Your task to perform on an android device: Add "dell alienware" to the cart on amazon, then select checkout. Image 0: 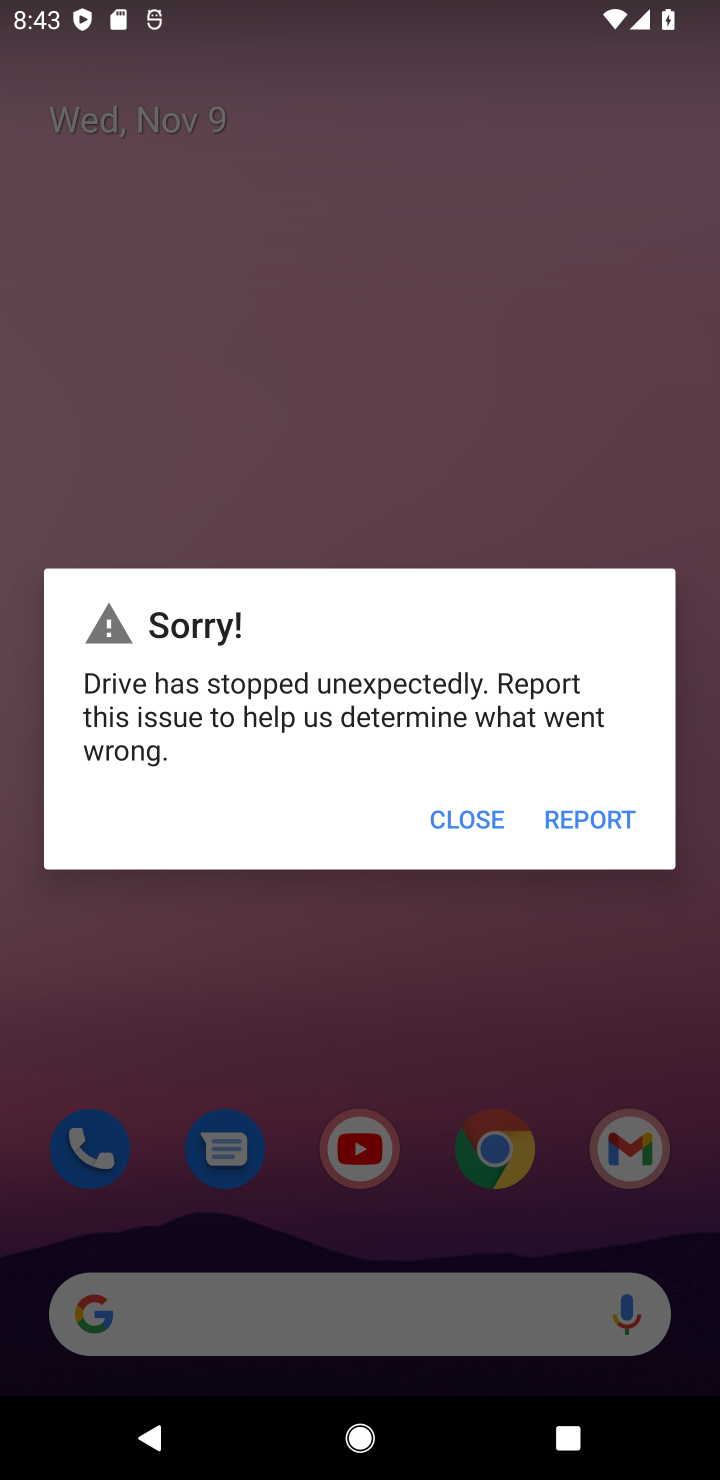
Step 0: click (454, 827)
Your task to perform on an android device: Add "dell alienware" to the cart on amazon, then select checkout. Image 1: 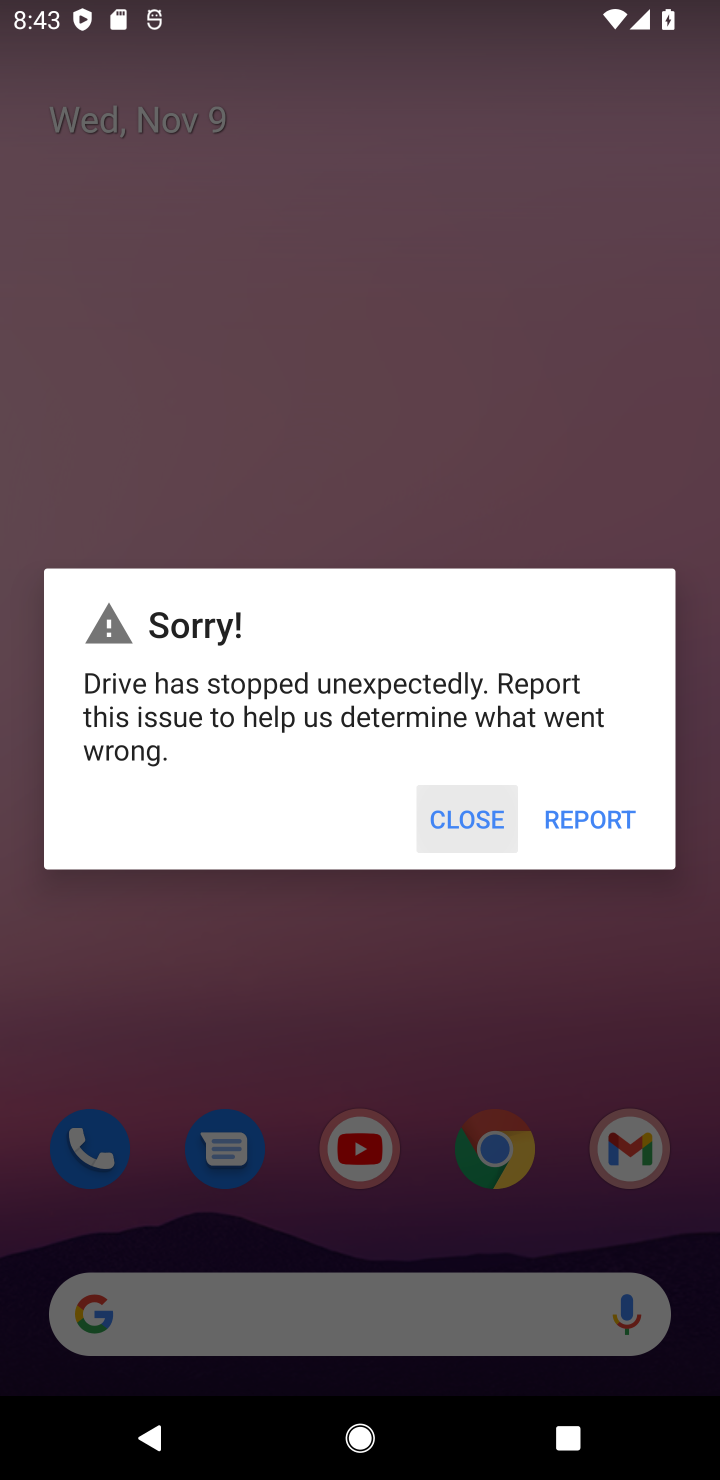
Step 1: click (467, 817)
Your task to perform on an android device: Add "dell alienware" to the cart on amazon, then select checkout. Image 2: 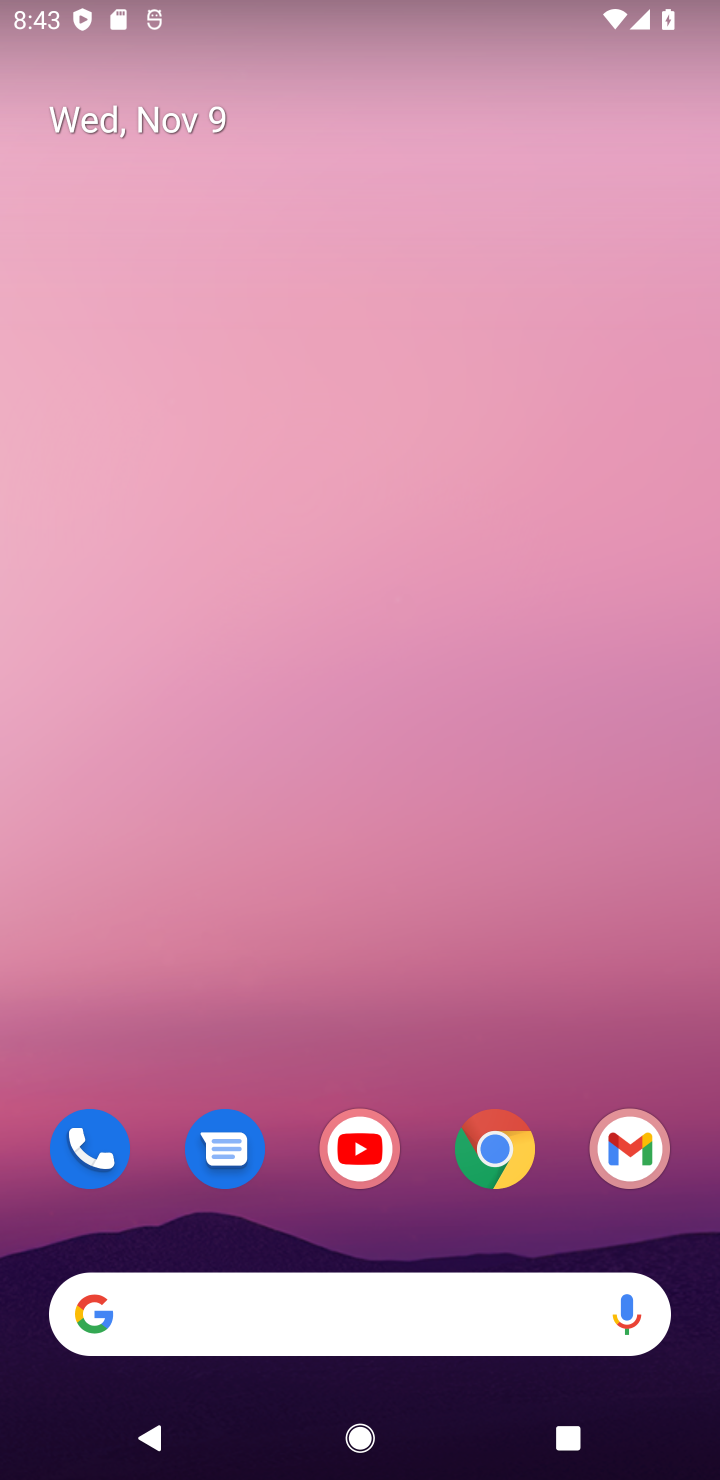
Step 2: click (502, 1153)
Your task to perform on an android device: Add "dell alienware" to the cart on amazon, then select checkout. Image 3: 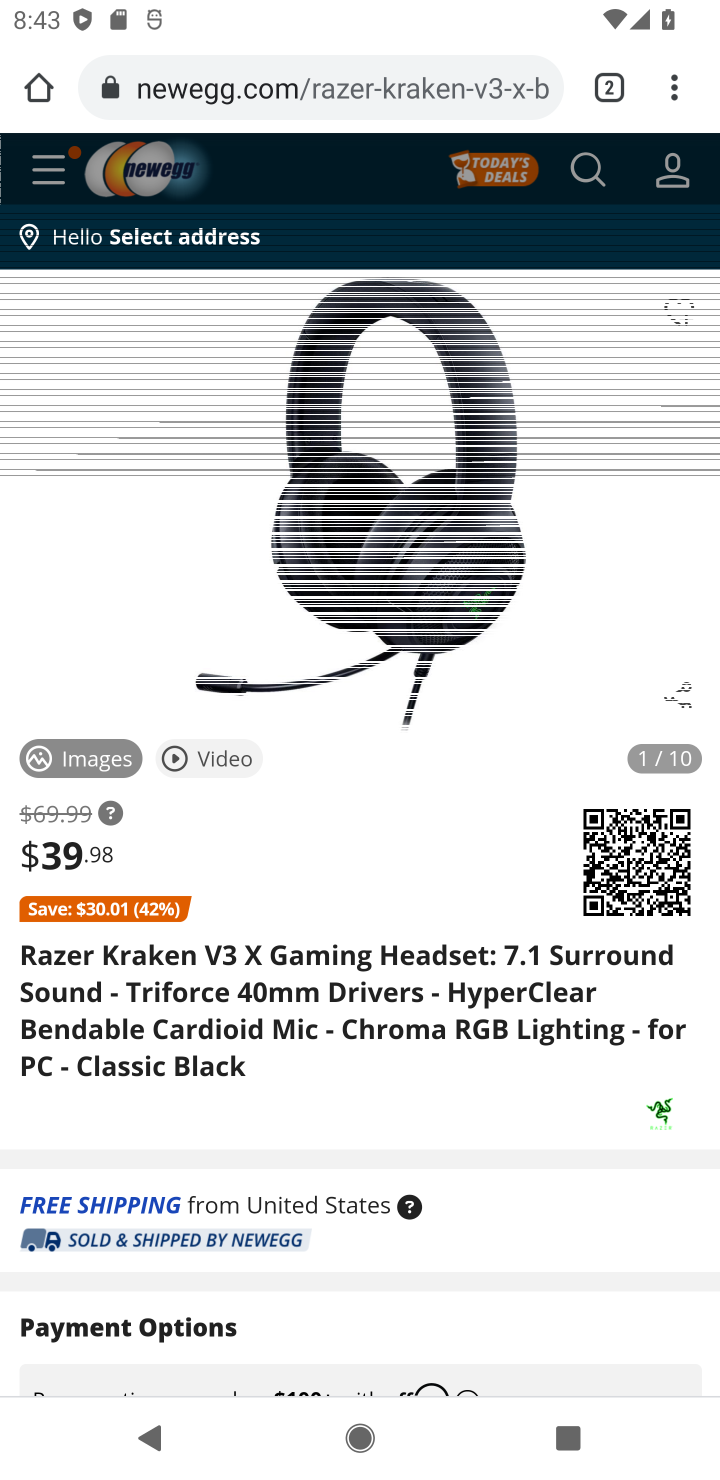
Step 3: click (611, 78)
Your task to perform on an android device: Add "dell alienware" to the cart on amazon, then select checkout. Image 4: 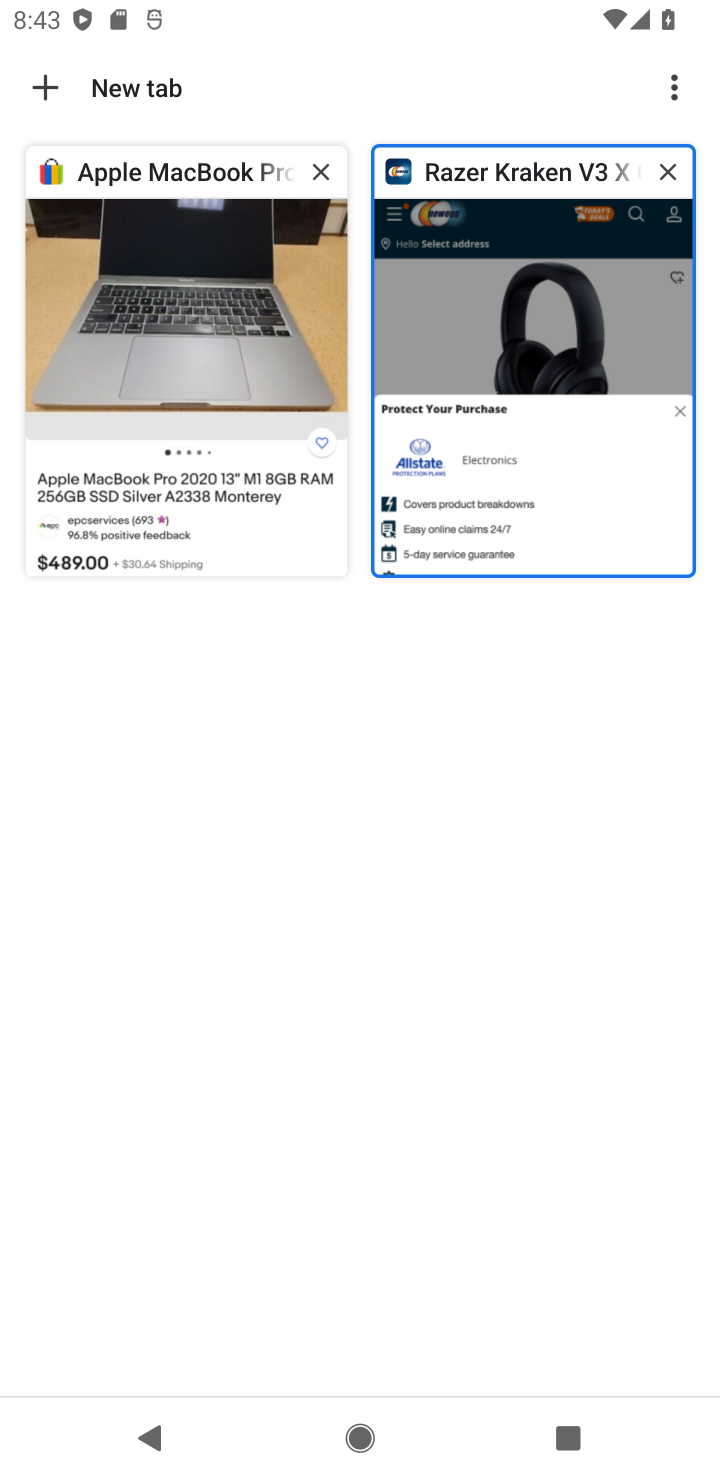
Step 4: click (36, 78)
Your task to perform on an android device: Add "dell alienware" to the cart on amazon, then select checkout. Image 5: 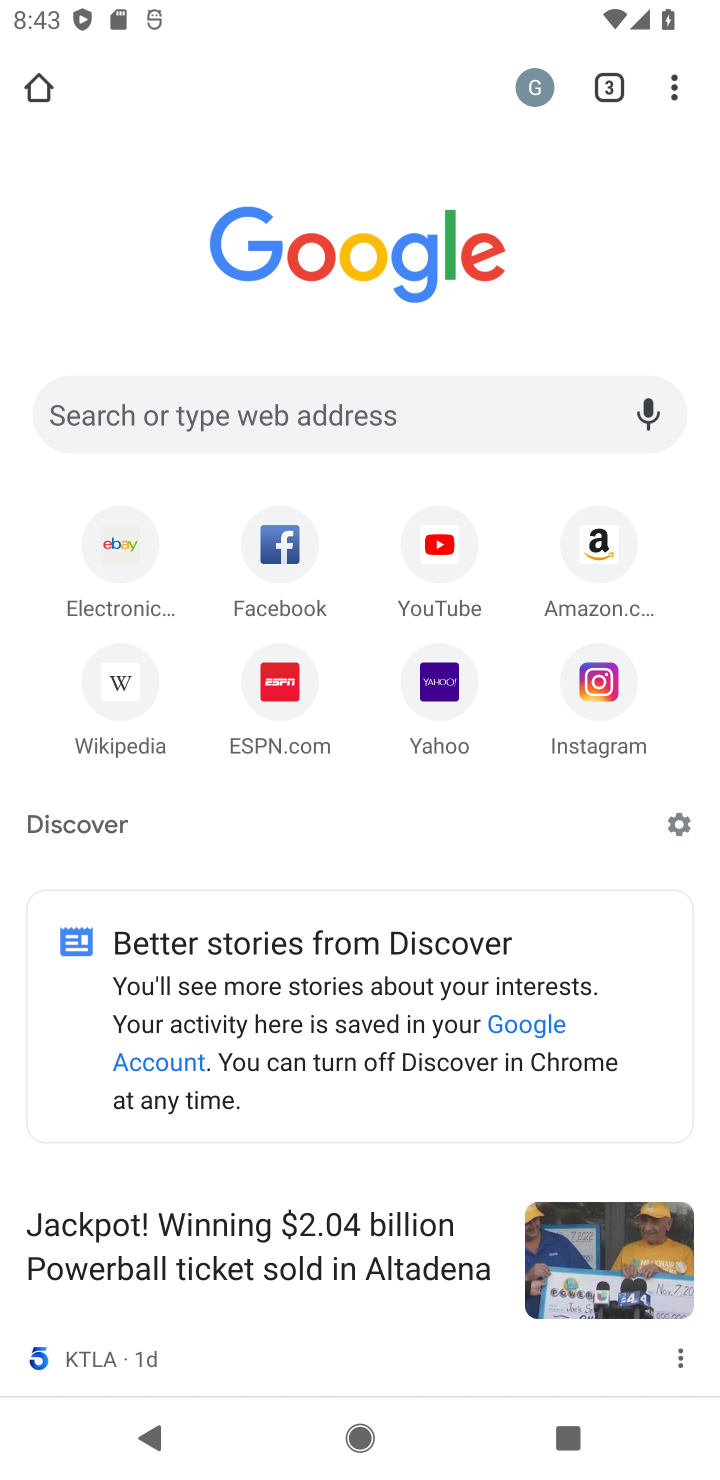
Step 5: click (412, 404)
Your task to perform on an android device: Add "dell alienware" to the cart on amazon, then select checkout. Image 6: 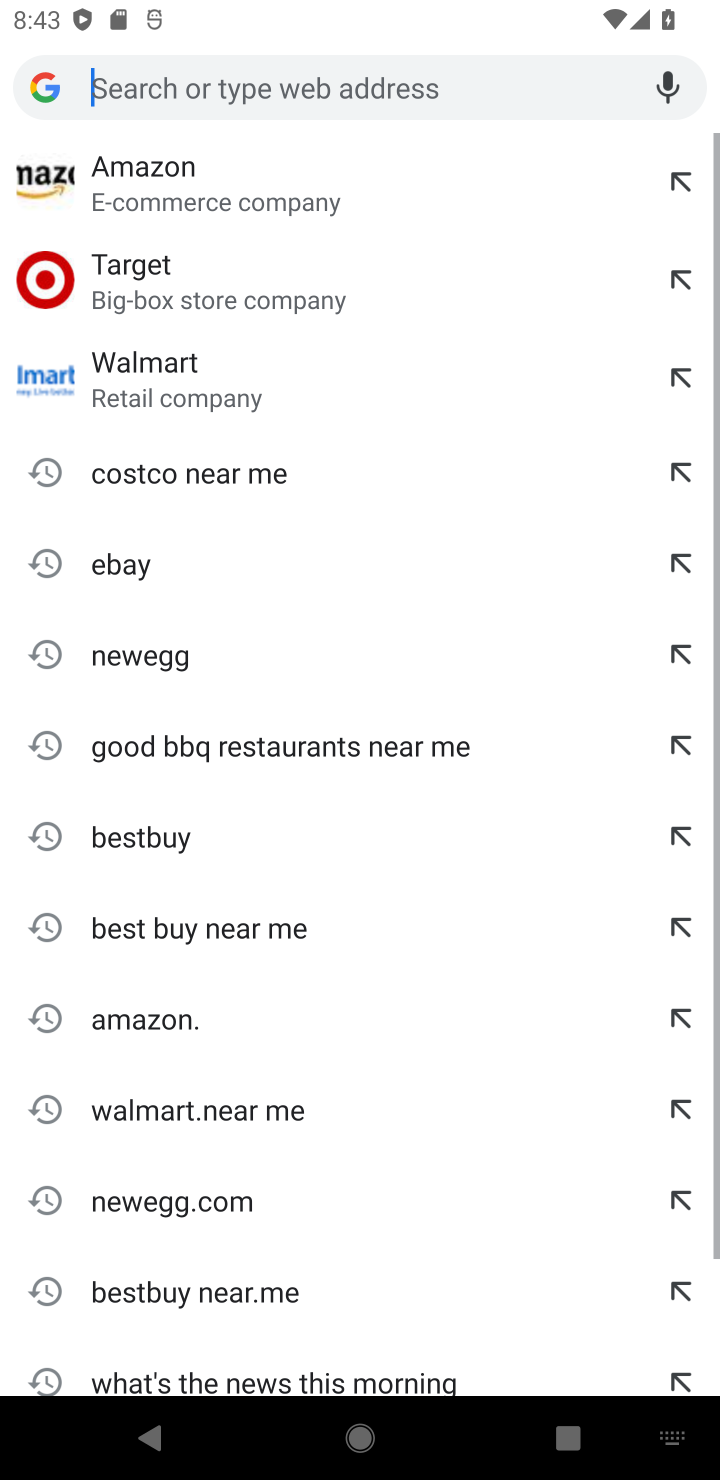
Step 6: click (228, 196)
Your task to perform on an android device: Add "dell alienware" to the cart on amazon, then select checkout. Image 7: 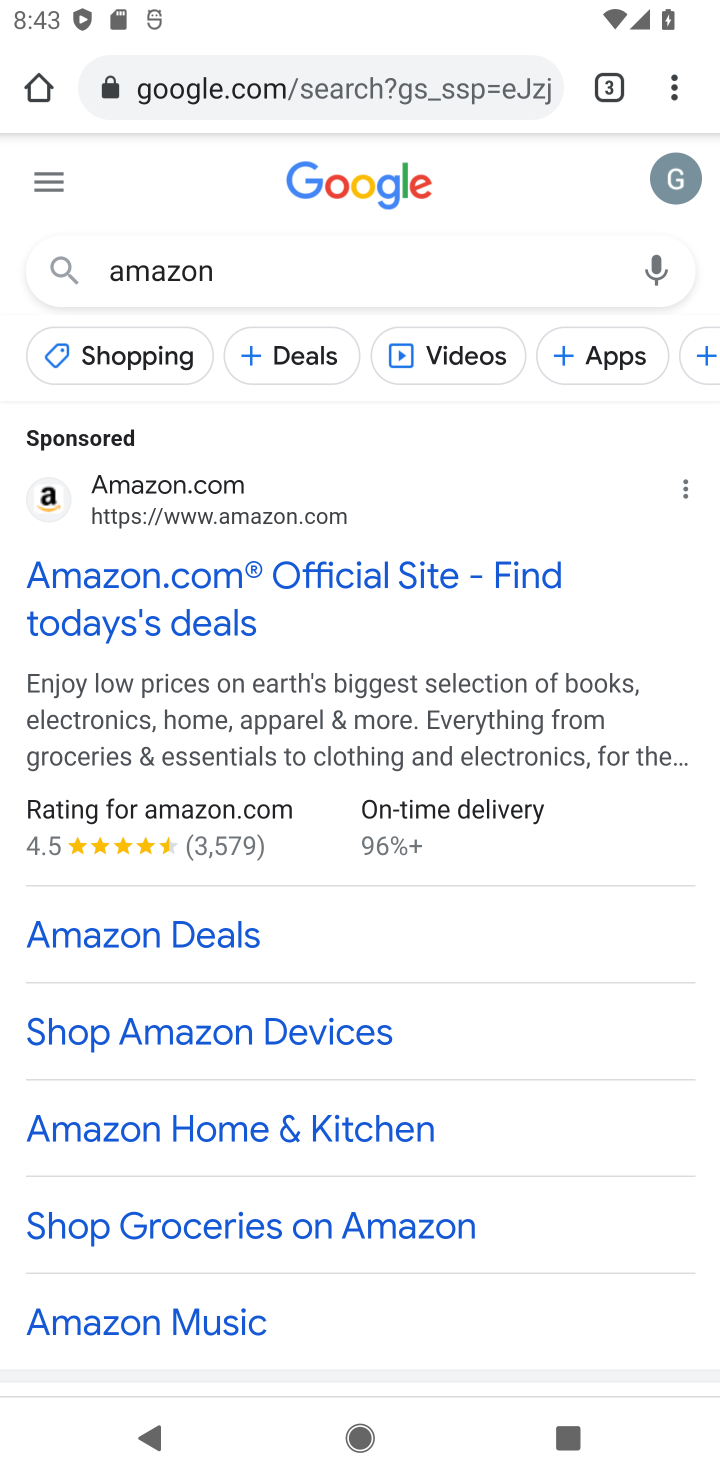
Step 7: click (114, 594)
Your task to perform on an android device: Add "dell alienware" to the cart on amazon, then select checkout. Image 8: 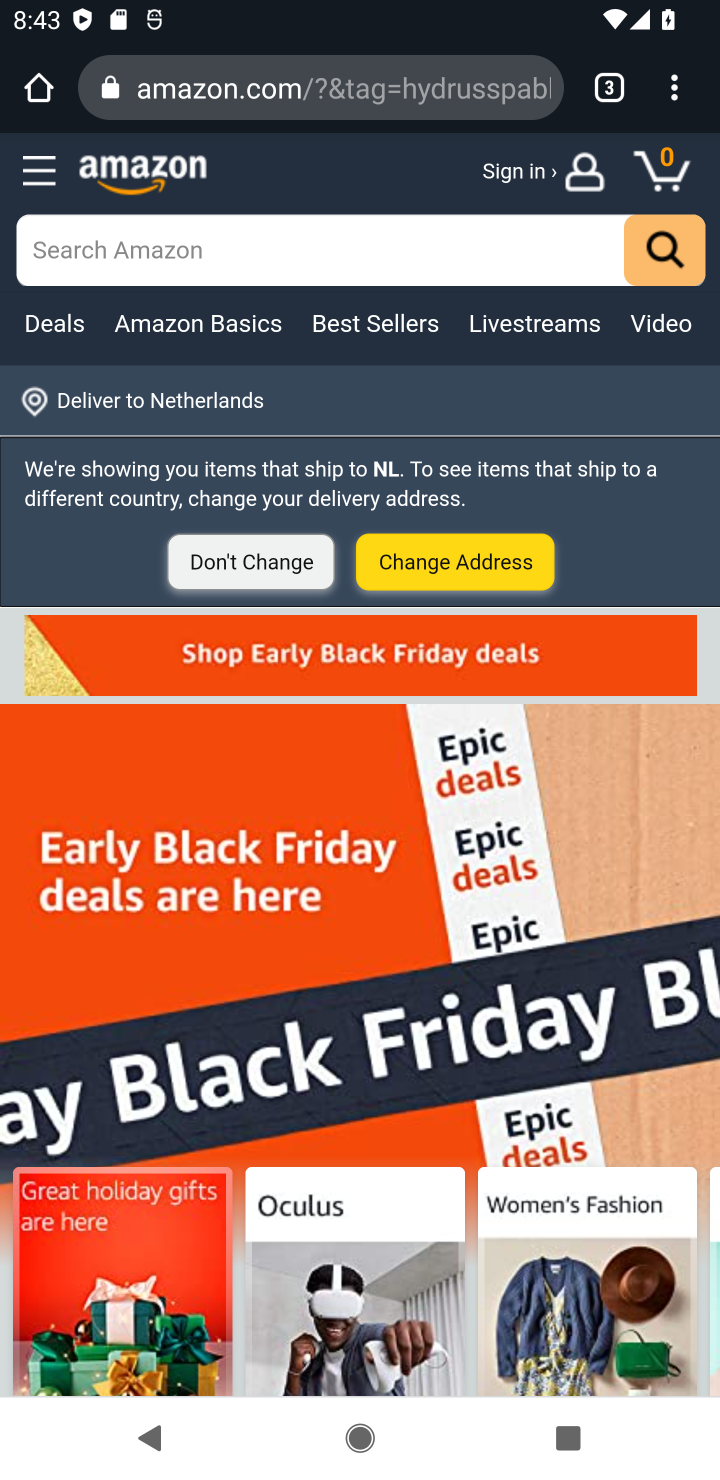
Step 8: click (201, 237)
Your task to perform on an android device: Add "dell alienware" to the cart on amazon, then select checkout. Image 9: 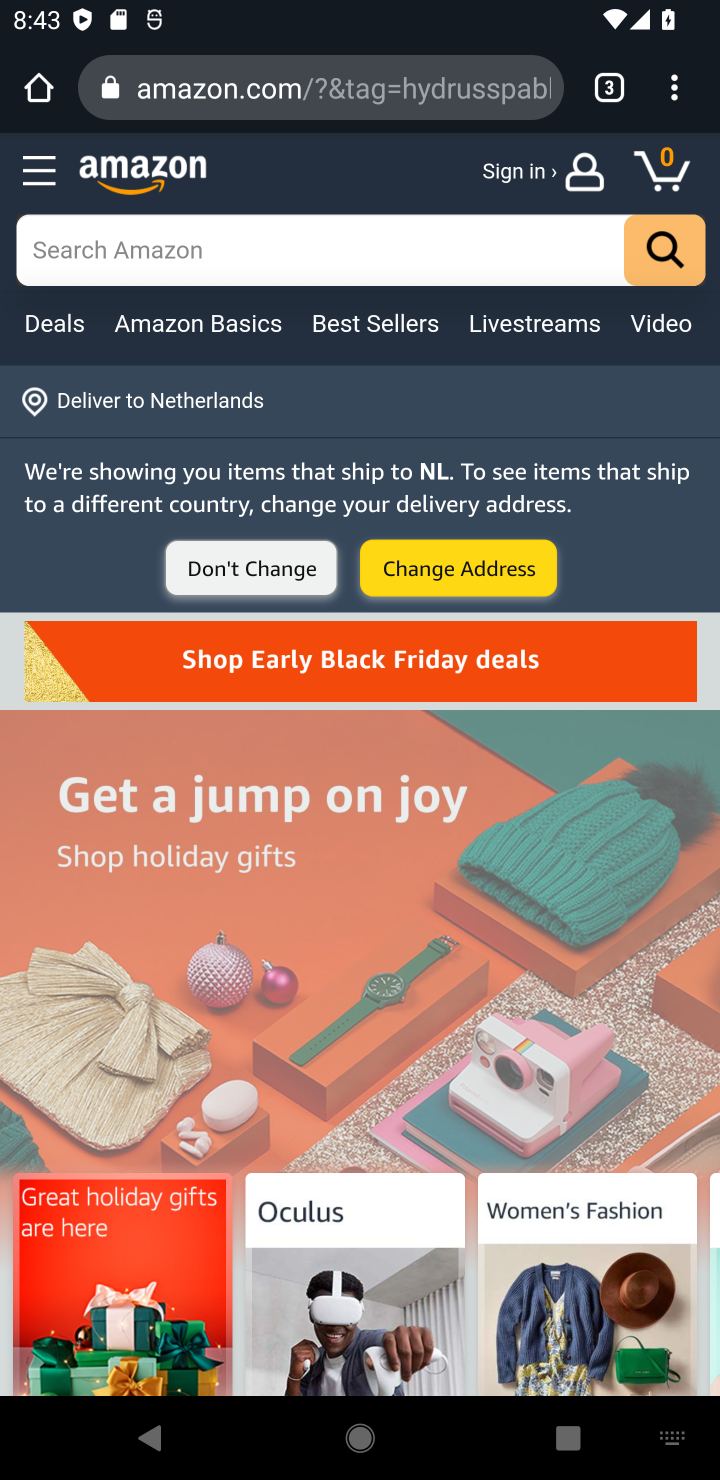
Step 9: type "dell alienware""
Your task to perform on an android device: Add "dell alienware" to the cart on amazon, then select checkout. Image 10: 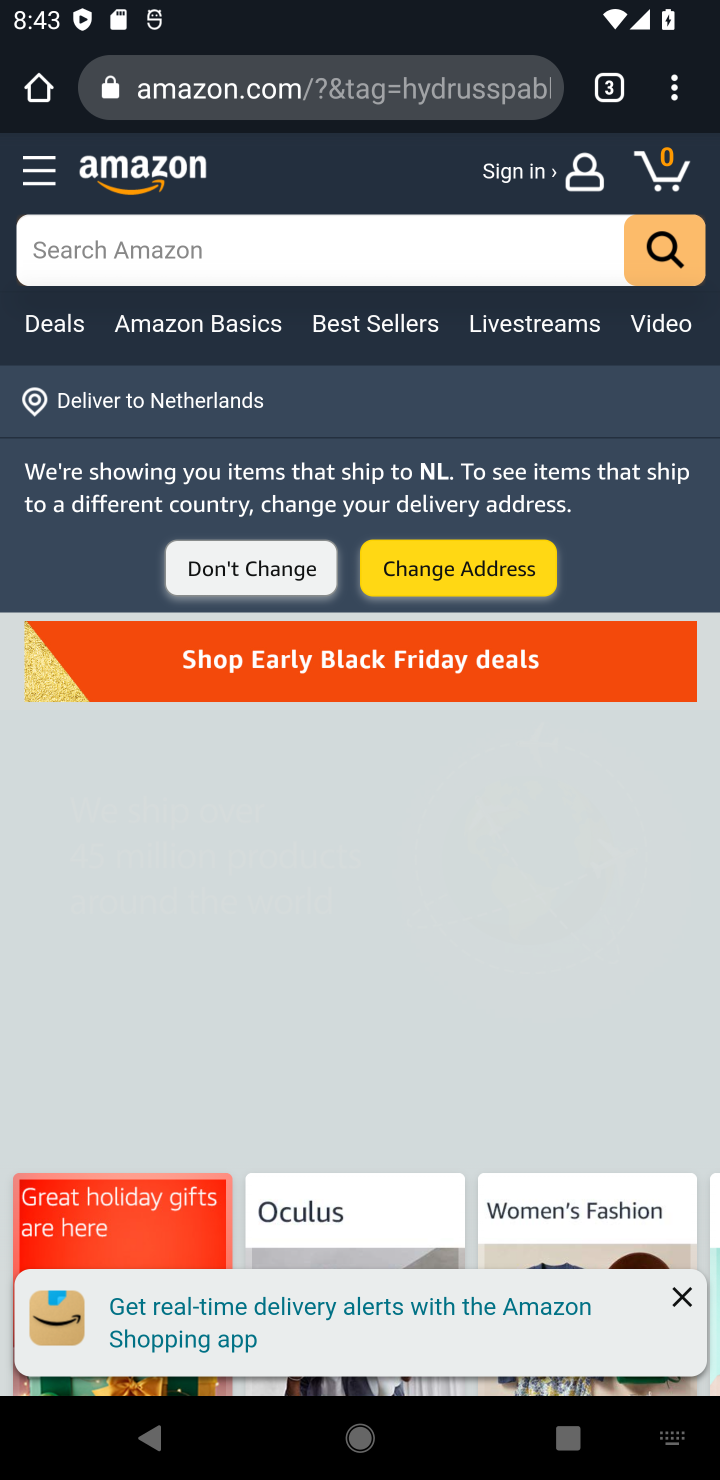
Step 10: click (296, 568)
Your task to perform on an android device: Add "dell alienware" to the cart on amazon, then select checkout. Image 11: 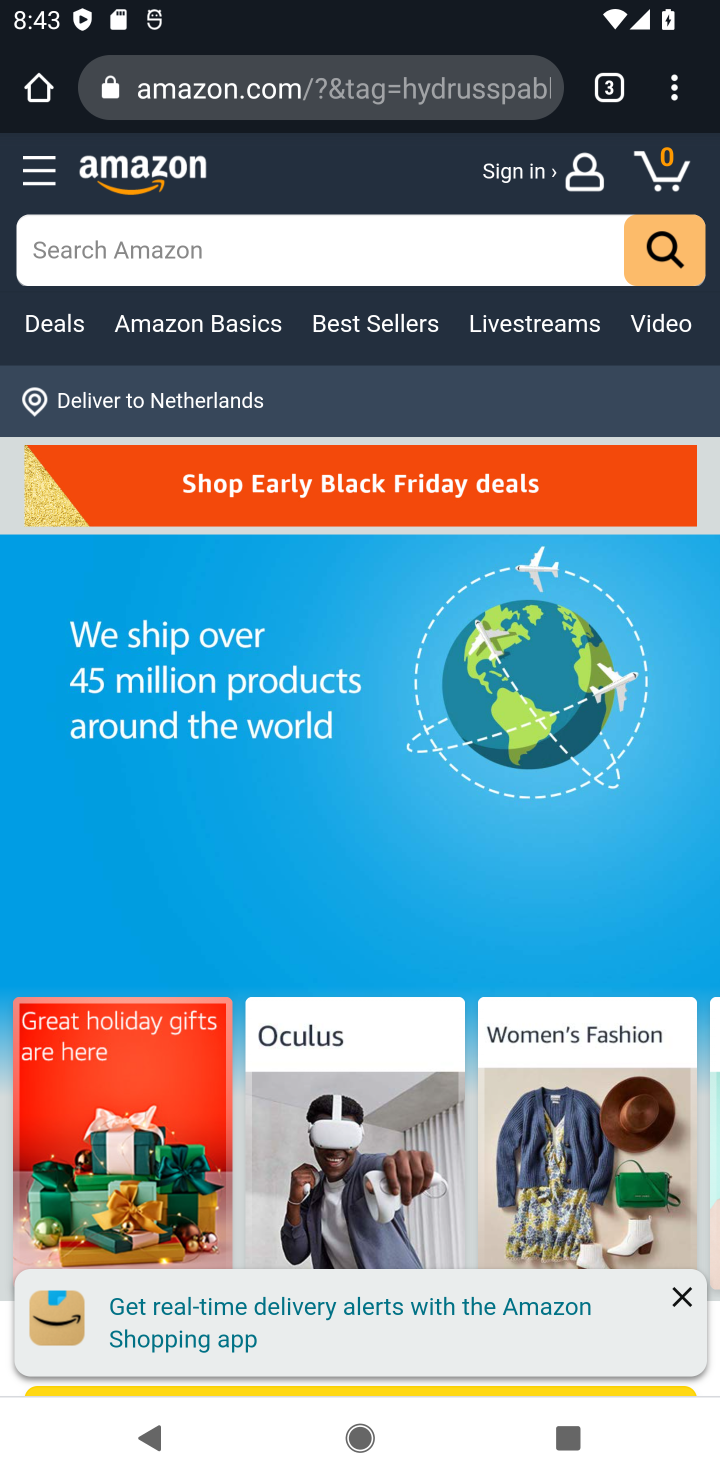
Step 11: click (202, 258)
Your task to perform on an android device: Add "dell alienware" to the cart on amazon, then select checkout. Image 12: 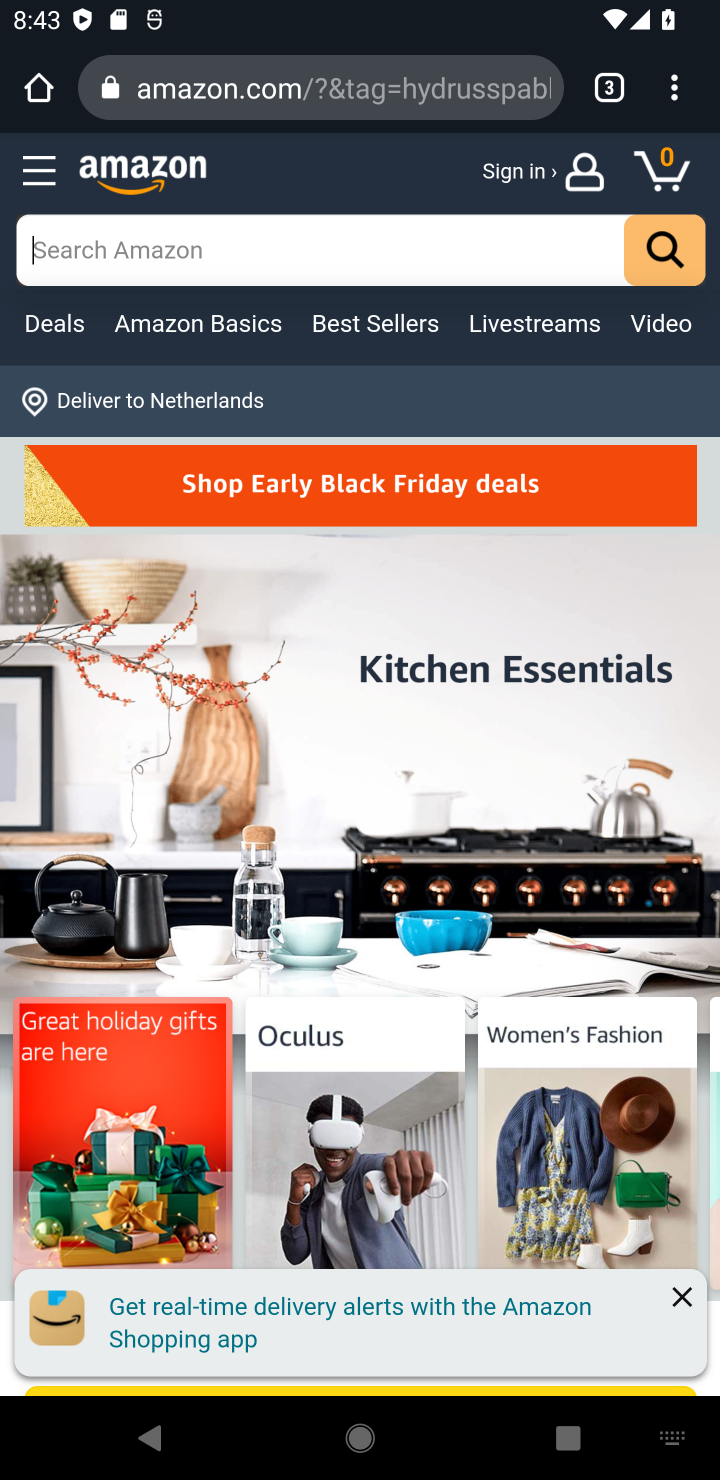
Step 12: type "dell alienware"
Your task to perform on an android device: Add "dell alienware" to the cart on amazon, then select checkout. Image 13: 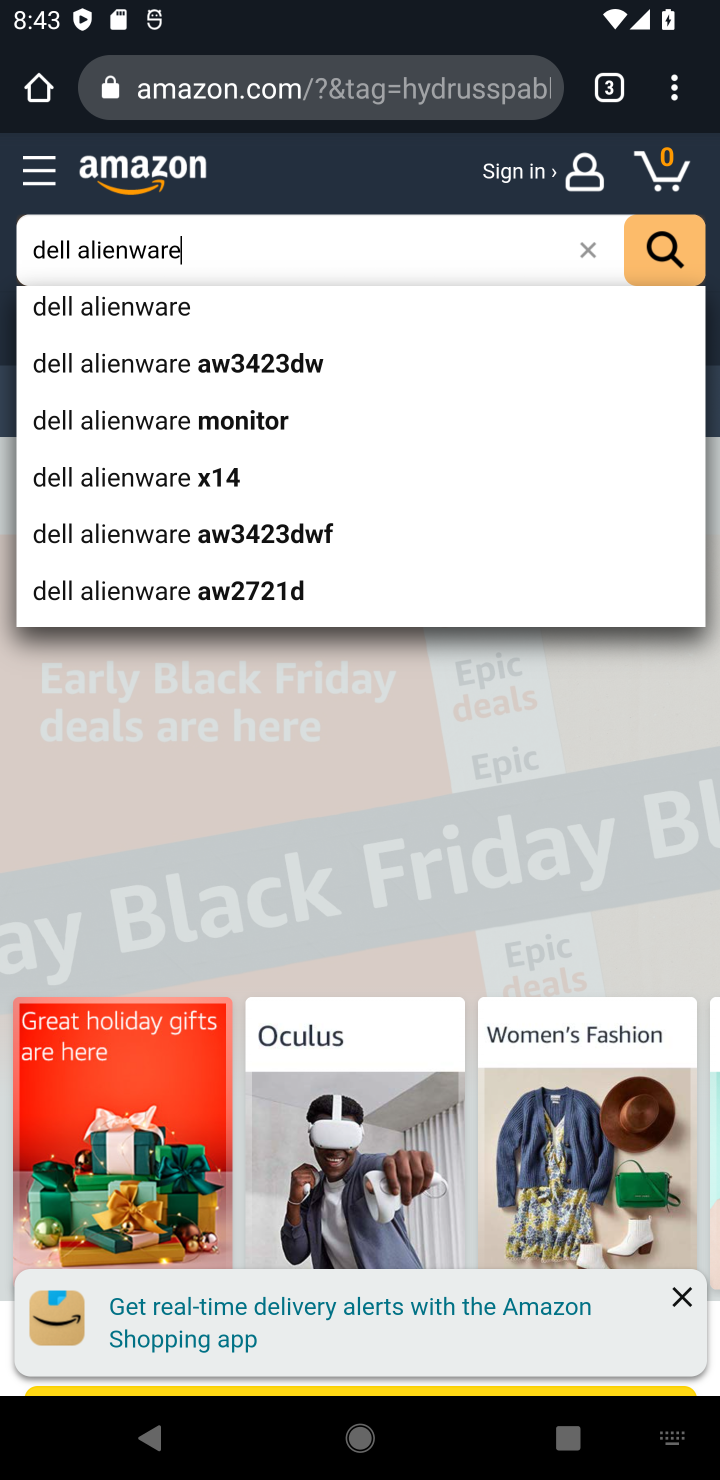
Step 13: click (138, 315)
Your task to perform on an android device: Add "dell alienware" to the cart on amazon, then select checkout. Image 14: 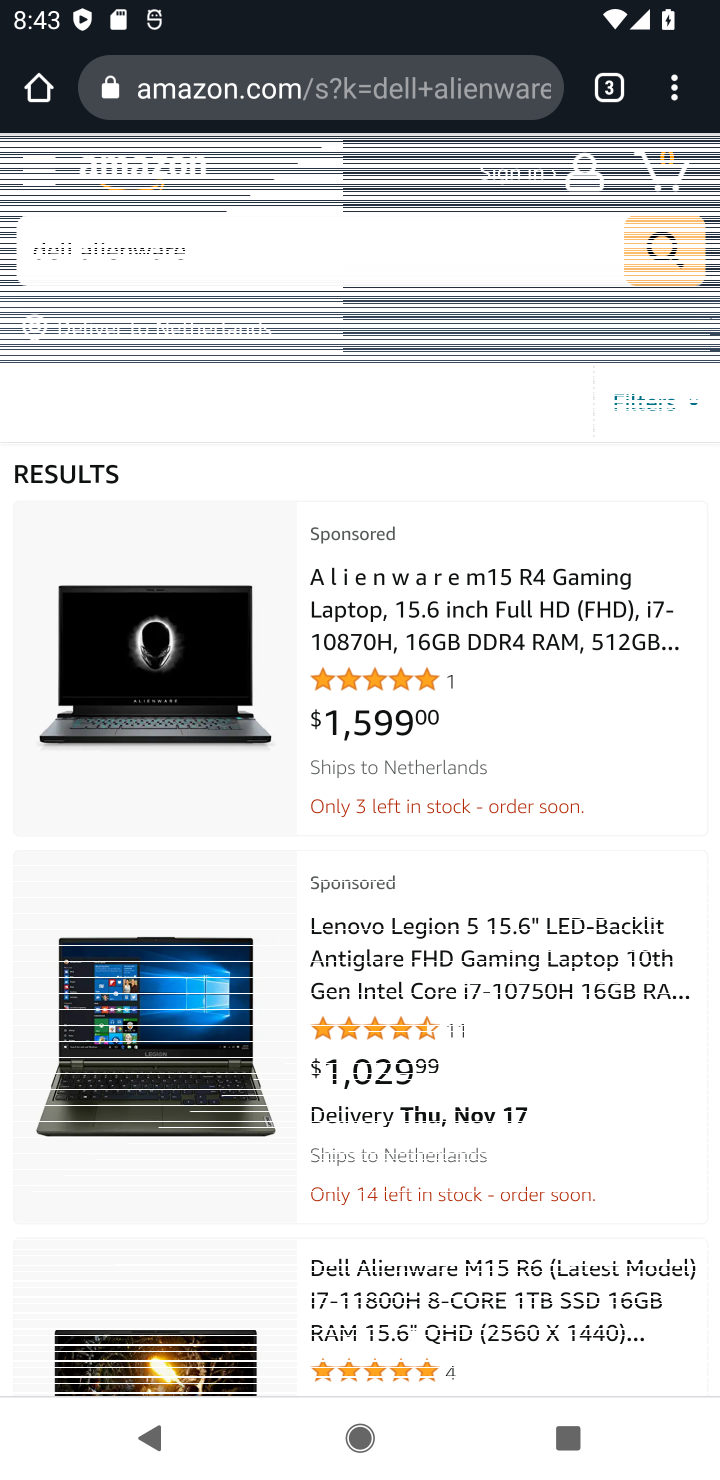
Step 14: click (441, 632)
Your task to perform on an android device: Add "dell alienware" to the cart on amazon, then select checkout. Image 15: 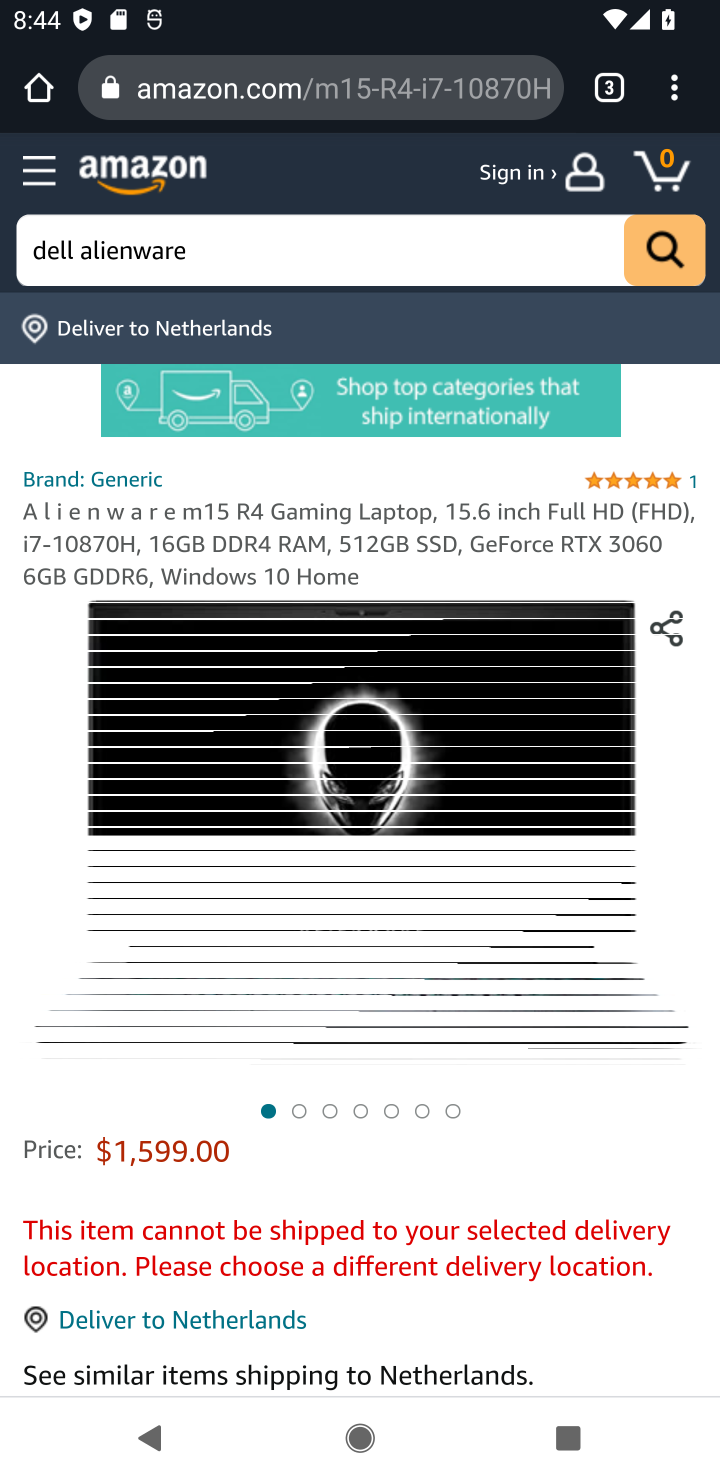
Step 15: press back button
Your task to perform on an android device: Add "dell alienware" to the cart on amazon, then select checkout. Image 16: 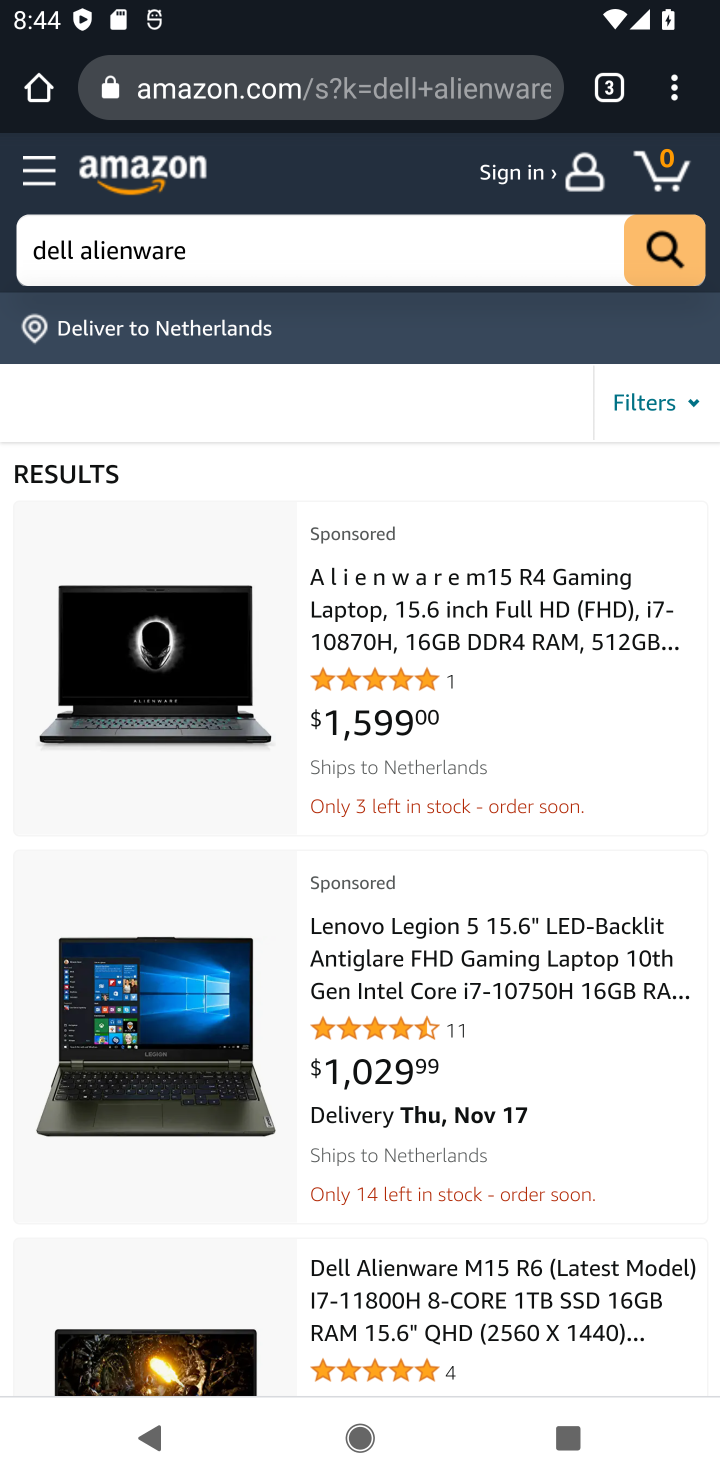
Step 16: click (508, 1282)
Your task to perform on an android device: Add "dell alienware" to the cart on amazon, then select checkout. Image 17: 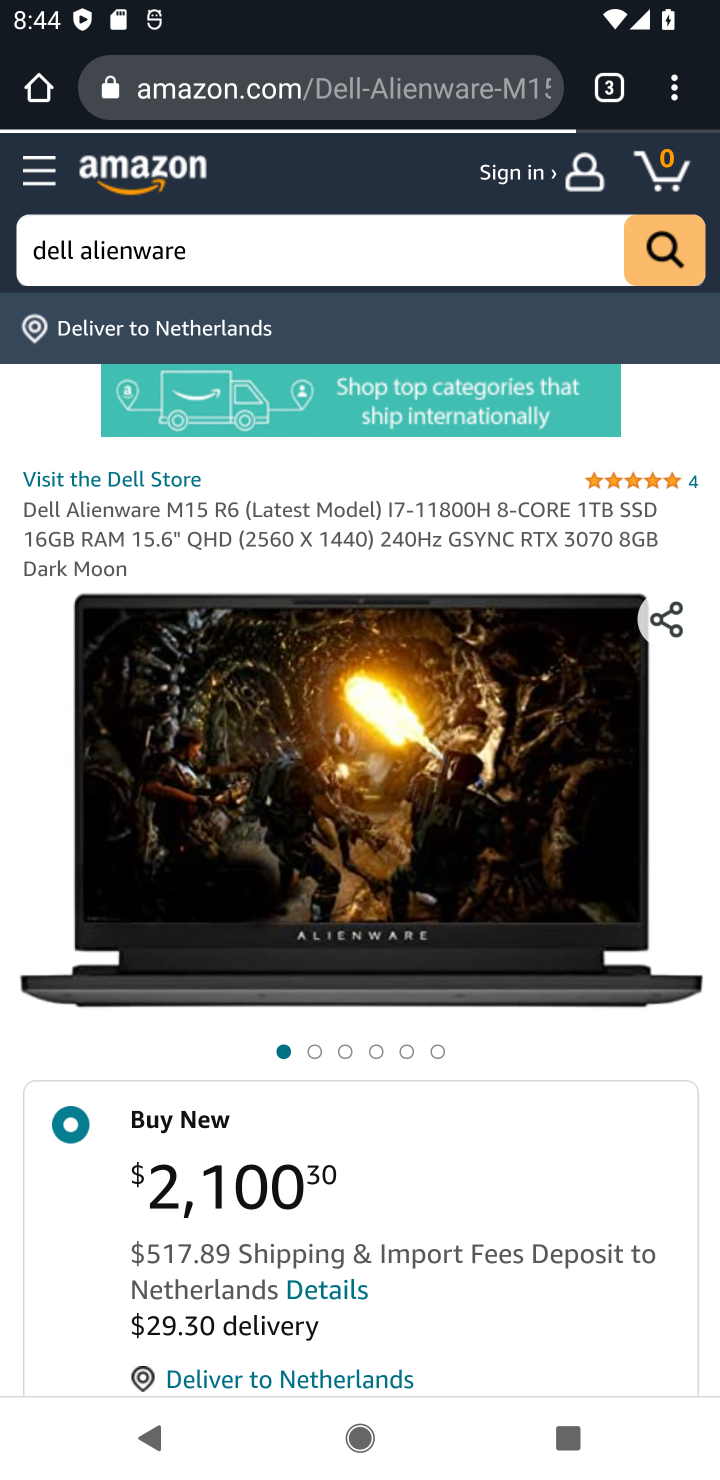
Step 17: drag from (508, 1282) to (512, 350)
Your task to perform on an android device: Add "dell alienware" to the cart on amazon, then select checkout. Image 18: 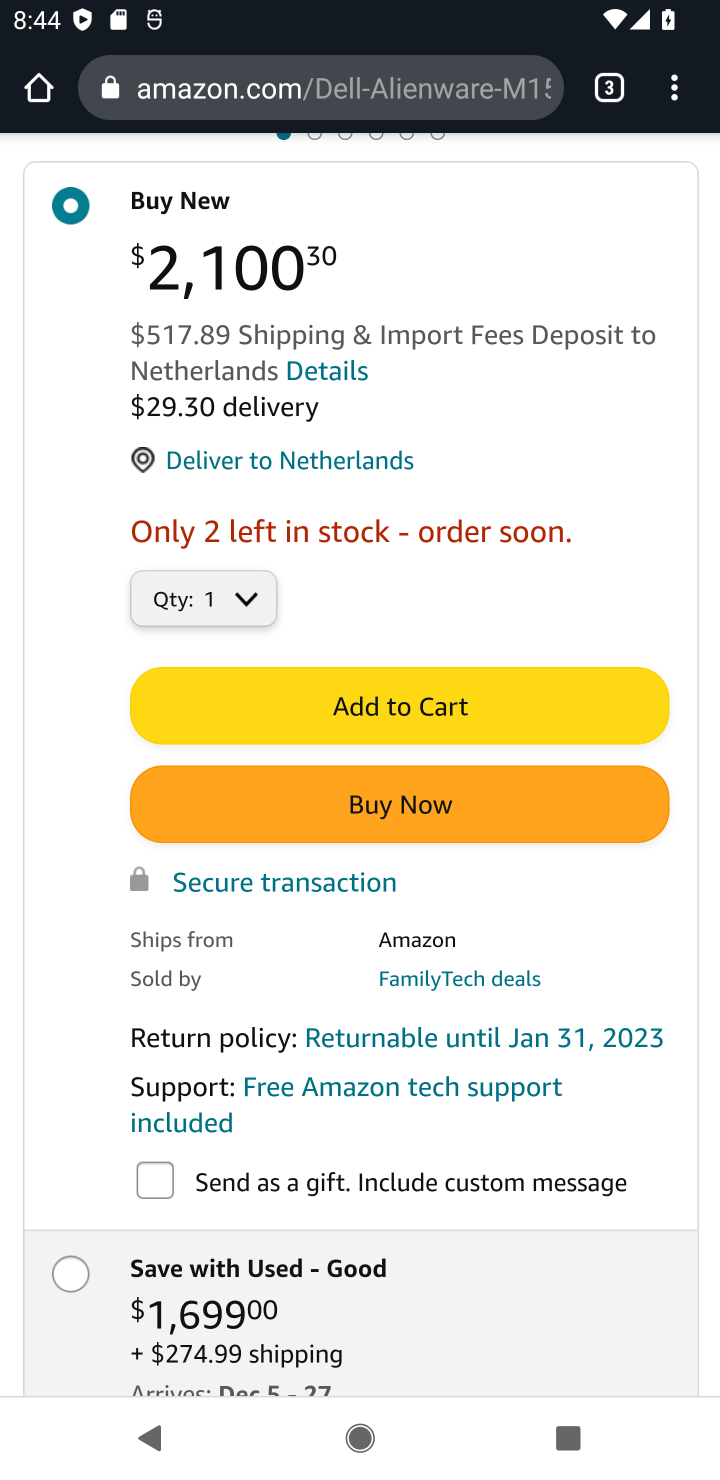
Step 18: click (486, 696)
Your task to perform on an android device: Add "dell alienware" to the cart on amazon, then select checkout. Image 19: 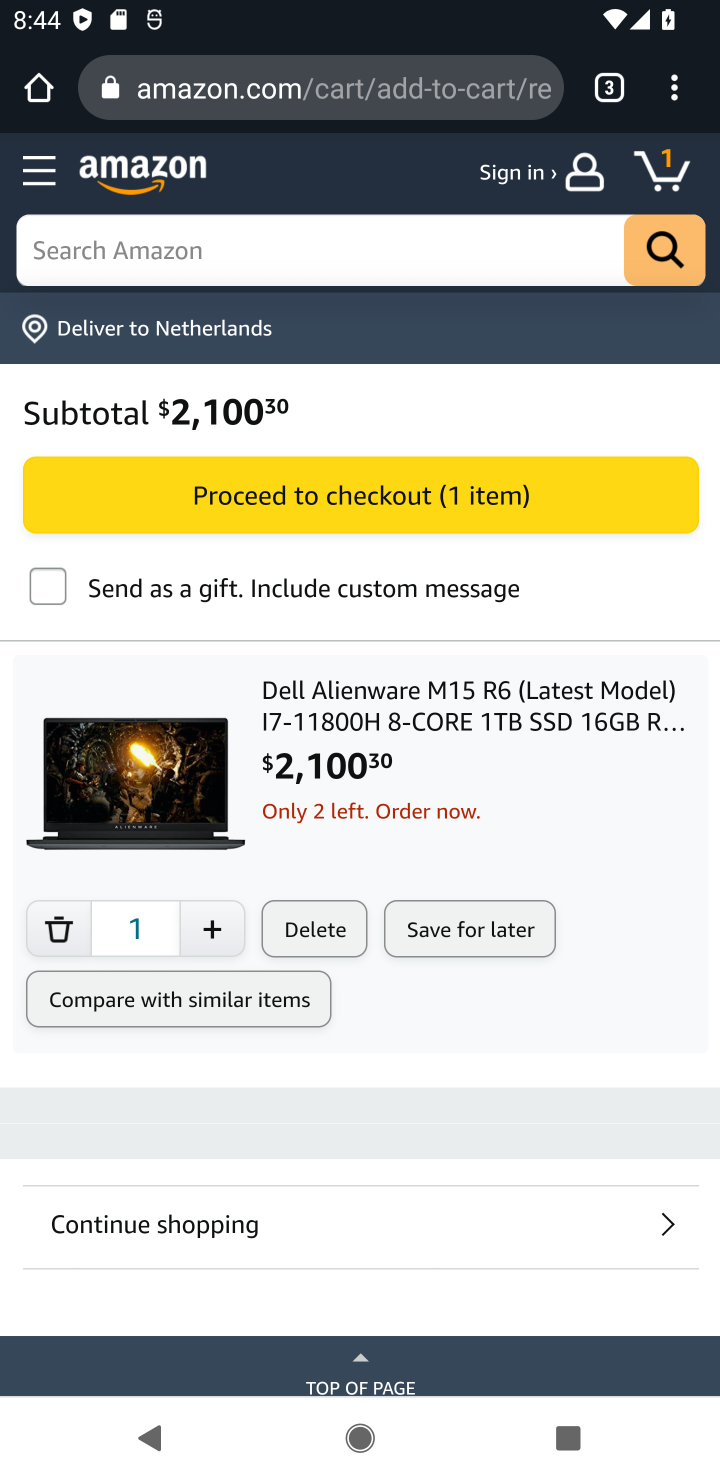
Step 19: click (450, 509)
Your task to perform on an android device: Add "dell alienware" to the cart on amazon, then select checkout. Image 20: 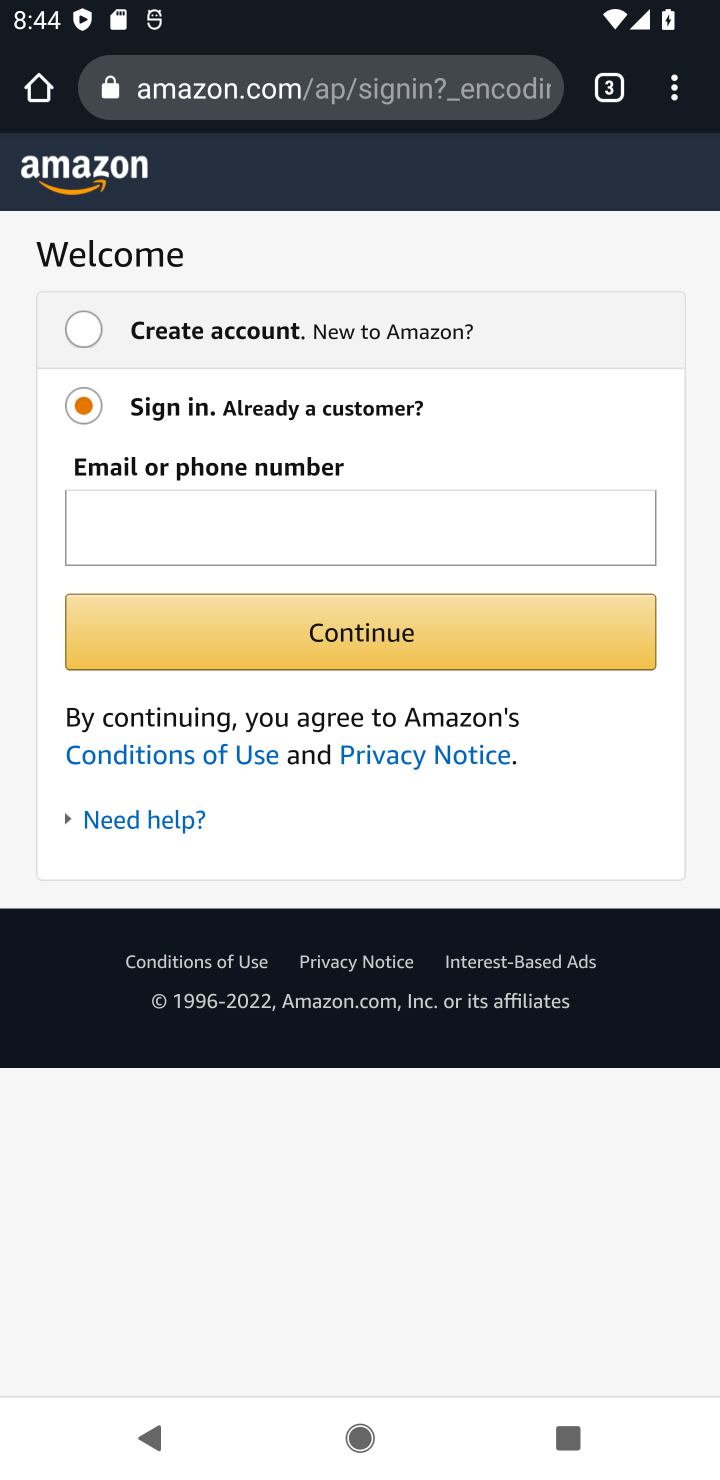
Step 20: task complete